Your task to perform on an android device: Open Google Image 0: 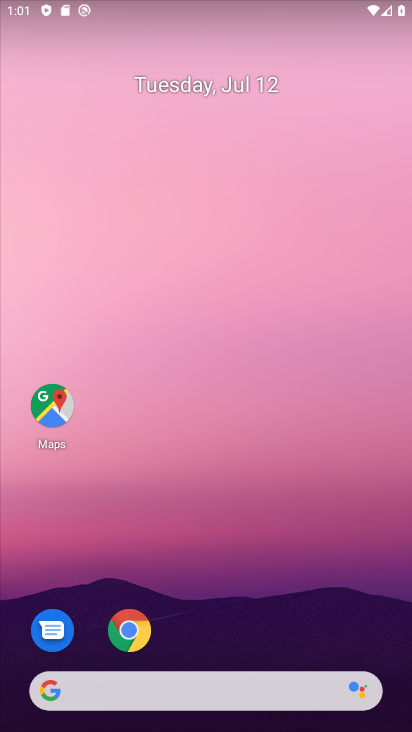
Step 0: drag from (211, 642) to (193, 140)
Your task to perform on an android device: Open Google Image 1: 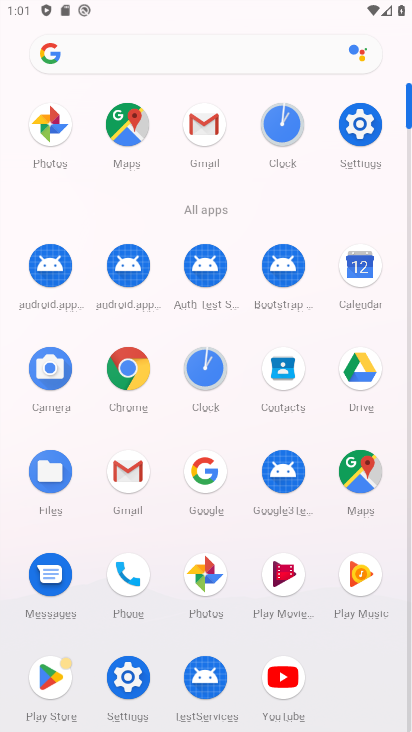
Step 1: click (213, 462)
Your task to perform on an android device: Open Google Image 2: 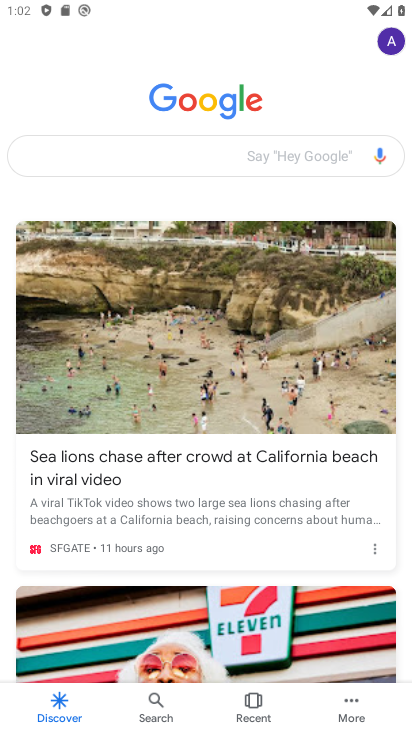
Step 2: task complete